Your task to perform on an android device: open app "Microsoft Outlook" Image 0: 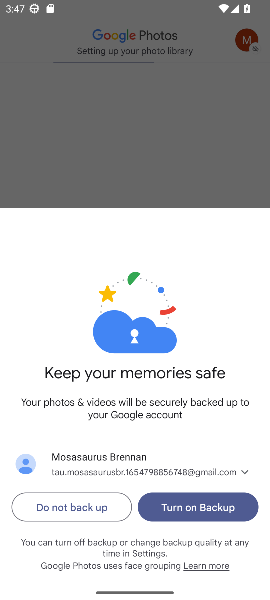
Step 0: press home button
Your task to perform on an android device: open app "Microsoft Outlook" Image 1: 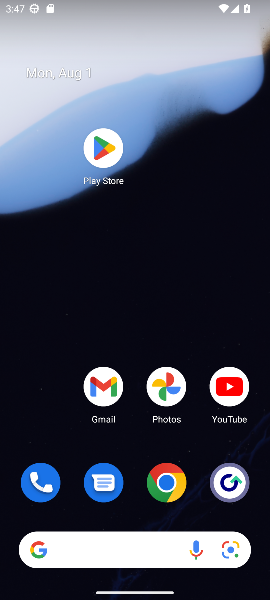
Step 1: click (102, 153)
Your task to perform on an android device: open app "Microsoft Outlook" Image 2: 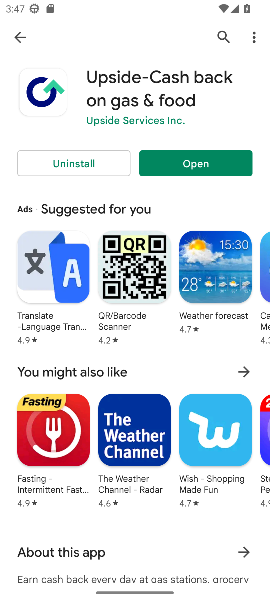
Step 2: click (218, 33)
Your task to perform on an android device: open app "Microsoft Outlook" Image 3: 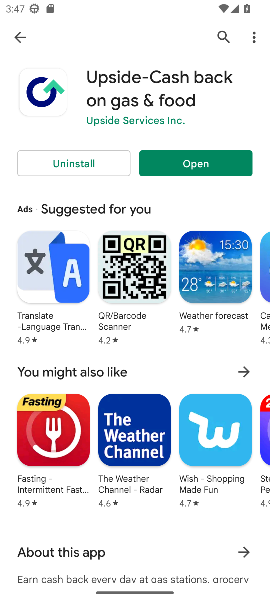
Step 3: click (220, 34)
Your task to perform on an android device: open app "Microsoft Outlook" Image 4: 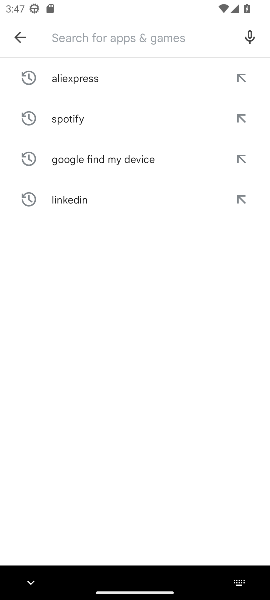
Step 4: type "Microsoft Outlook"
Your task to perform on an android device: open app "Microsoft Outlook" Image 5: 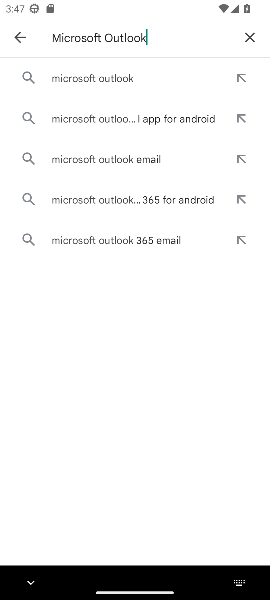
Step 5: click (120, 80)
Your task to perform on an android device: open app "Microsoft Outlook" Image 6: 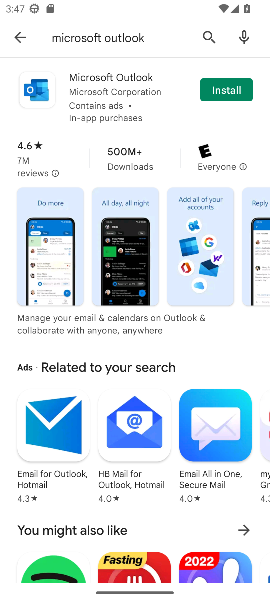
Step 6: task complete